Your task to perform on an android device: delete the emails in spam in the gmail app Image 0: 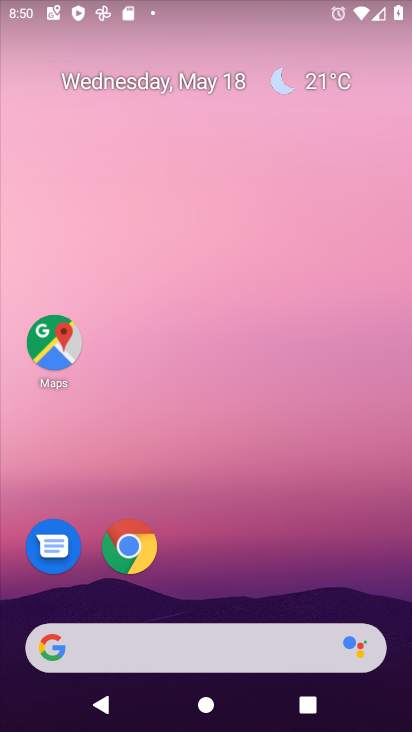
Step 0: drag from (385, 621) to (300, 2)
Your task to perform on an android device: delete the emails in spam in the gmail app Image 1: 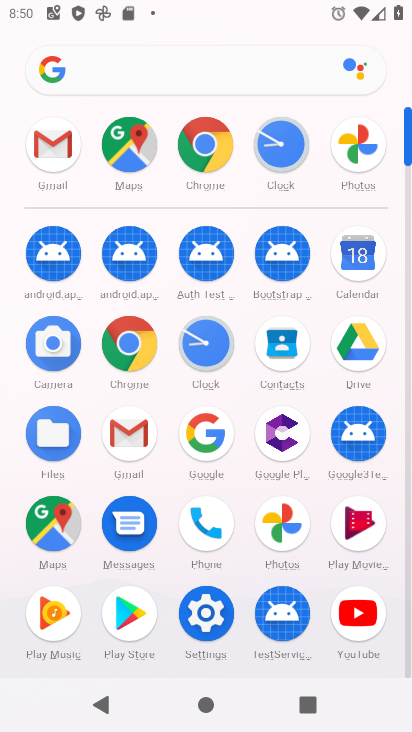
Step 1: click (132, 431)
Your task to perform on an android device: delete the emails in spam in the gmail app Image 2: 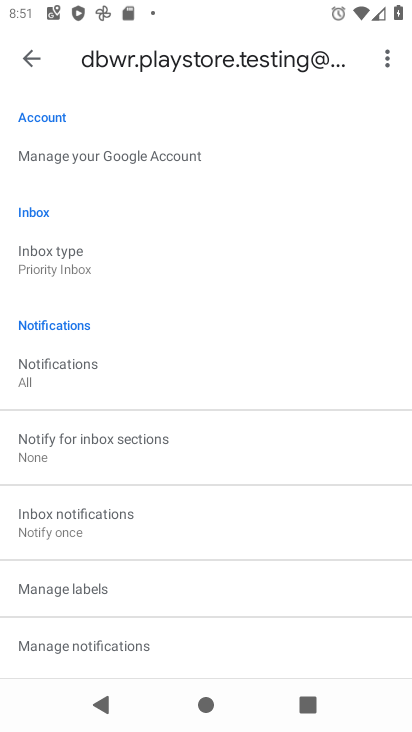
Step 2: press back button
Your task to perform on an android device: delete the emails in spam in the gmail app Image 3: 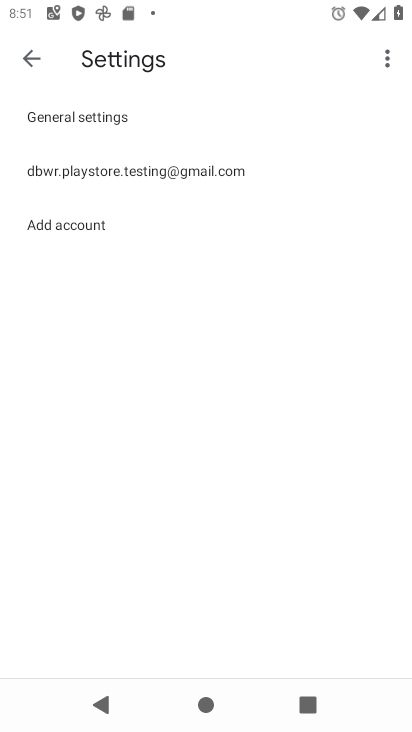
Step 3: press back button
Your task to perform on an android device: delete the emails in spam in the gmail app Image 4: 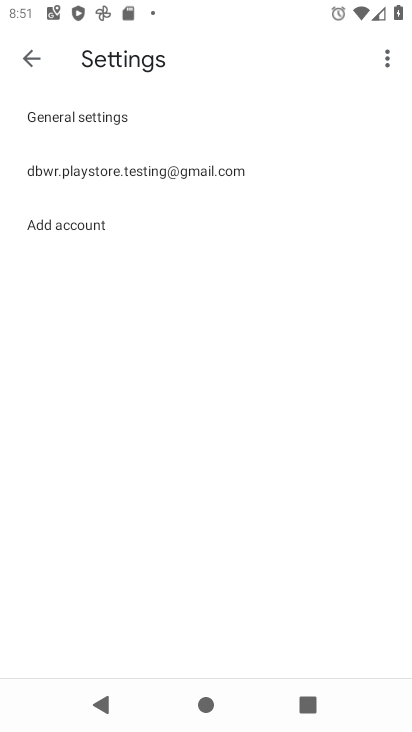
Step 4: press back button
Your task to perform on an android device: delete the emails in spam in the gmail app Image 5: 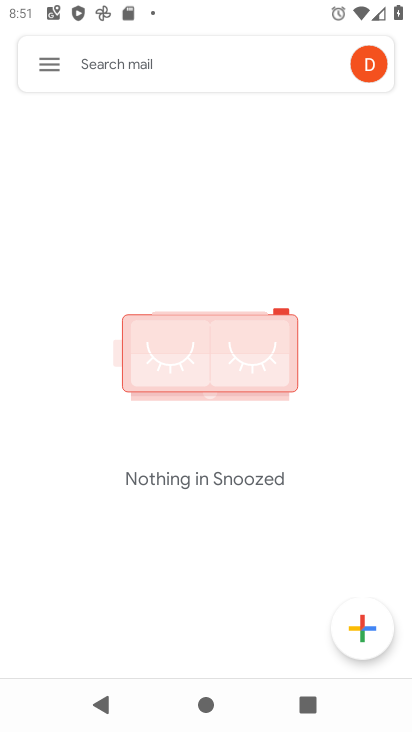
Step 5: click (41, 58)
Your task to perform on an android device: delete the emails in spam in the gmail app Image 6: 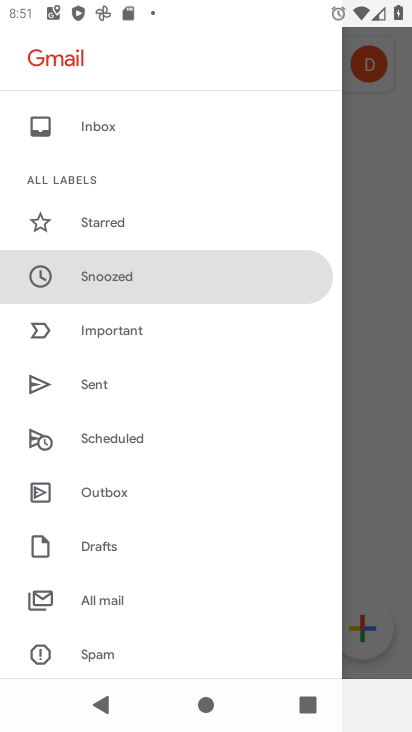
Step 6: click (195, 640)
Your task to perform on an android device: delete the emails in spam in the gmail app Image 7: 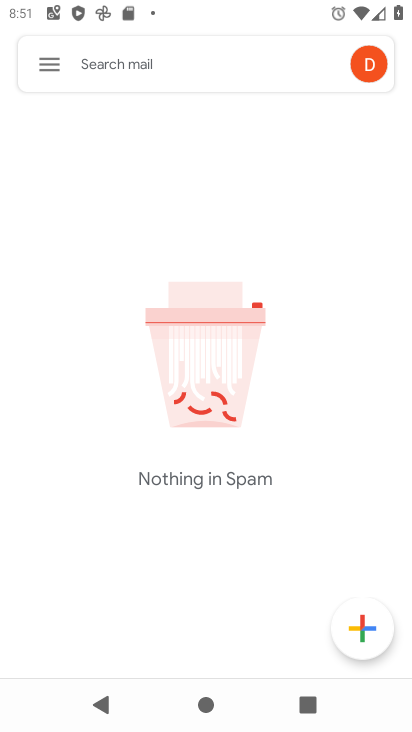
Step 7: task complete